Your task to perform on an android device: turn off location Image 0: 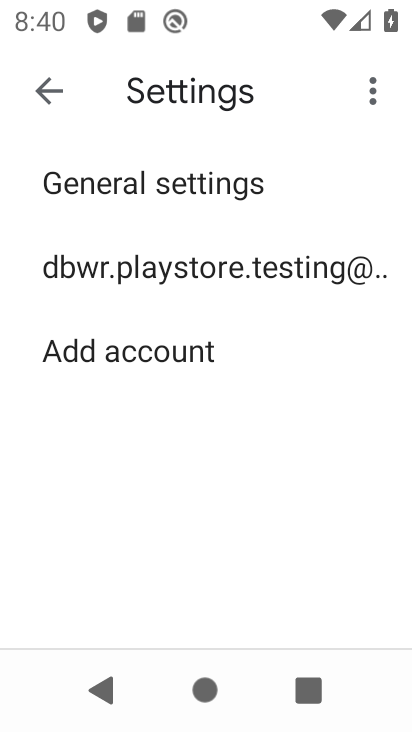
Step 0: press home button
Your task to perform on an android device: turn off location Image 1: 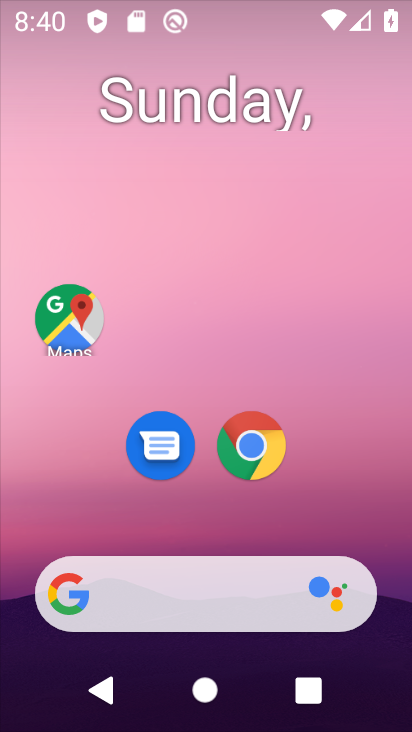
Step 1: drag from (331, 445) to (327, 102)
Your task to perform on an android device: turn off location Image 2: 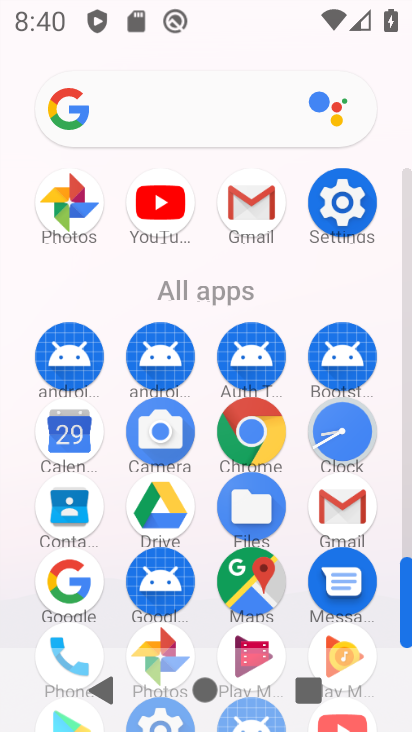
Step 2: click (340, 192)
Your task to perform on an android device: turn off location Image 3: 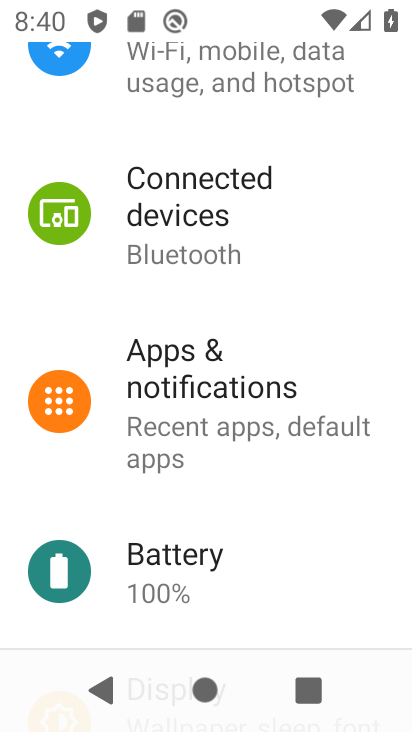
Step 3: drag from (239, 131) to (317, 75)
Your task to perform on an android device: turn off location Image 4: 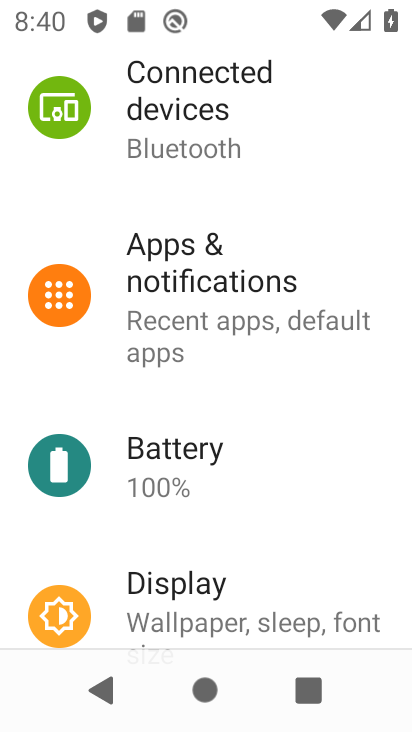
Step 4: drag from (258, 550) to (259, 97)
Your task to perform on an android device: turn off location Image 5: 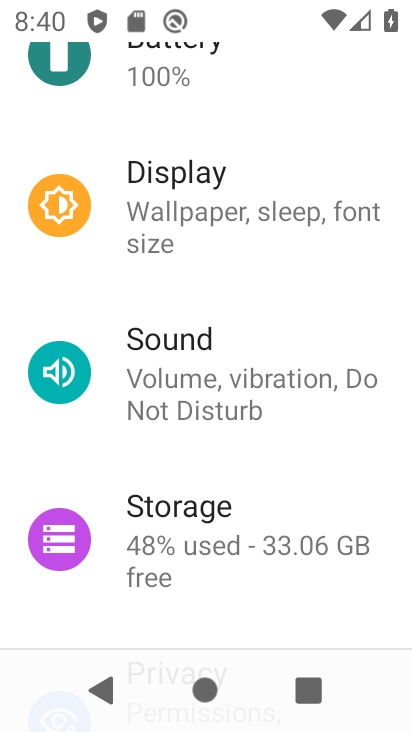
Step 5: drag from (190, 537) to (241, 129)
Your task to perform on an android device: turn off location Image 6: 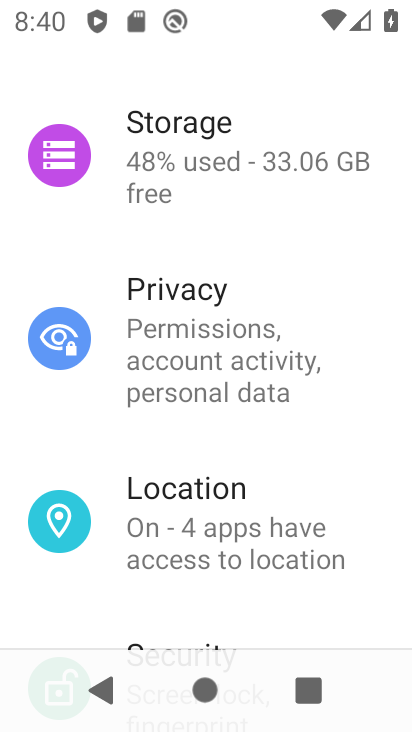
Step 6: click (209, 507)
Your task to perform on an android device: turn off location Image 7: 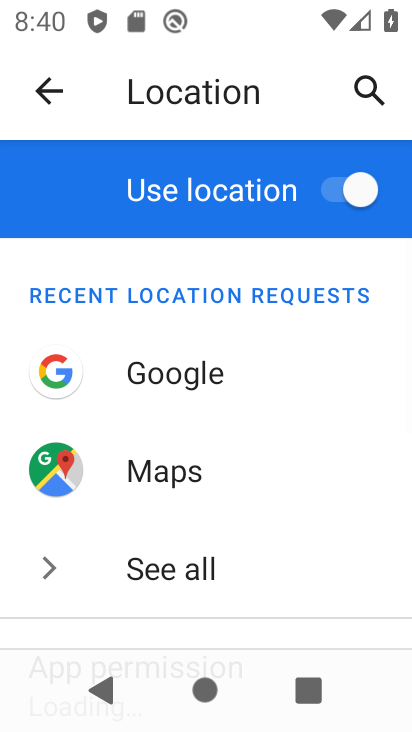
Step 7: drag from (303, 583) to (330, 146)
Your task to perform on an android device: turn off location Image 8: 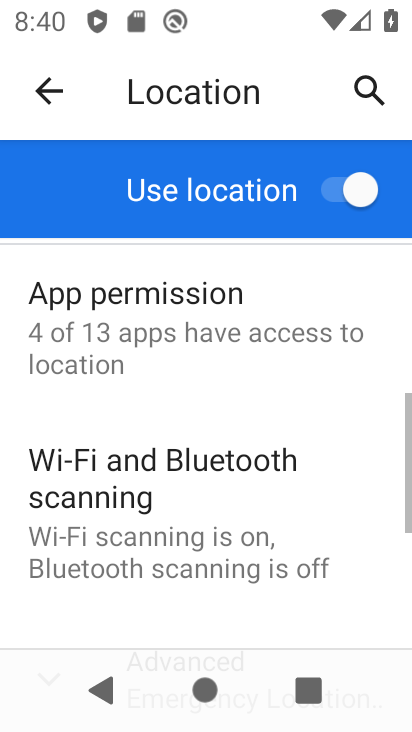
Step 8: click (345, 192)
Your task to perform on an android device: turn off location Image 9: 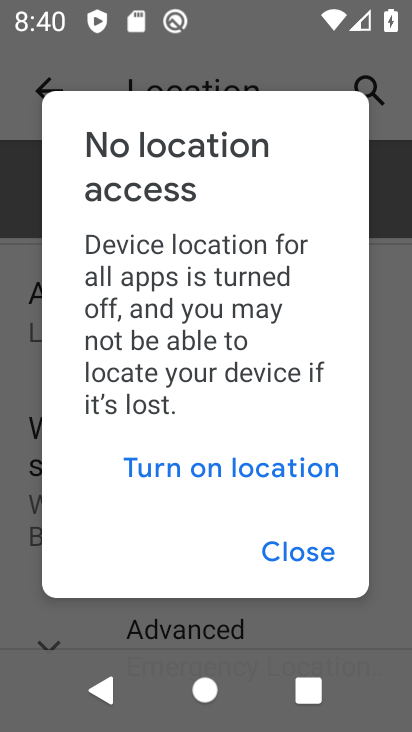
Step 9: task complete